Your task to perform on an android device: What's the weather going to be this weekend? Image 0: 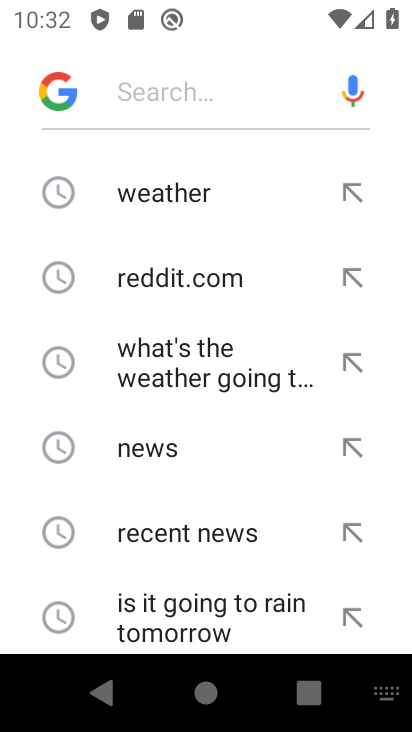
Step 0: press home button
Your task to perform on an android device: What's the weather going to be this weekend? Image 1: 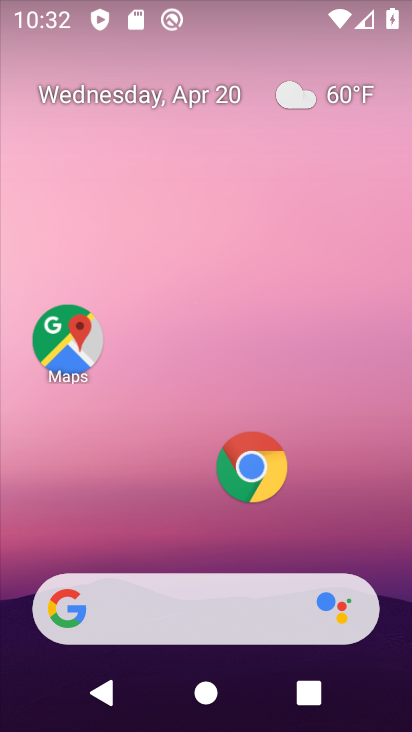
Step 1: drag from (195, 522) to (197, 43)
Your task to perform on an android device: What's the weather going to be this weekend? Image 2: 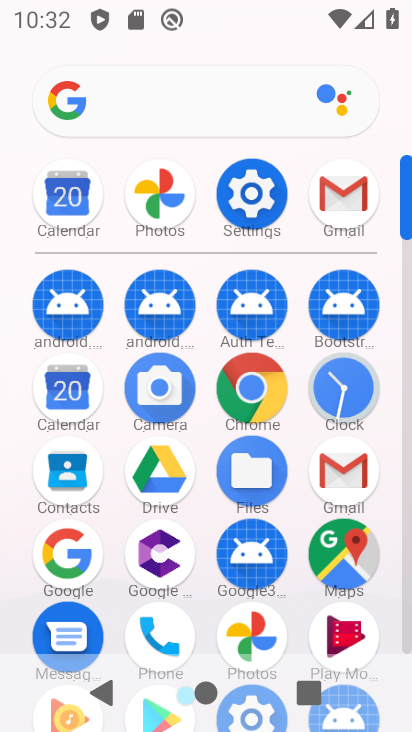
Step 2: click (124, 120)
Your task to perform on an android device: What's the weather going to be this weekend? Image 3: 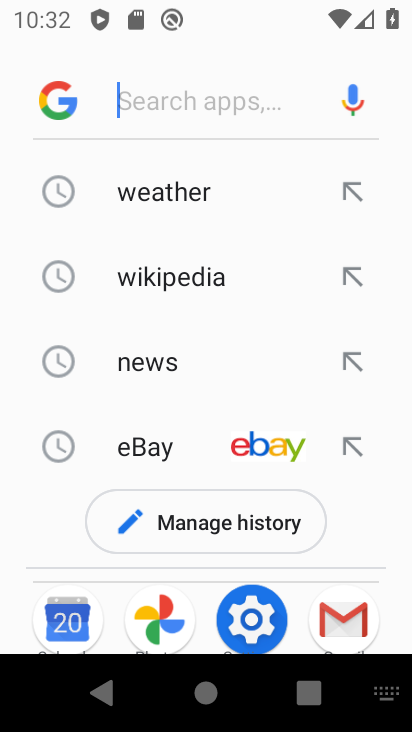
Step 3: type "what's the weather going to be this weekend"
Your task to perform on an android device: What's the weather going to be this weekend? Image 4: 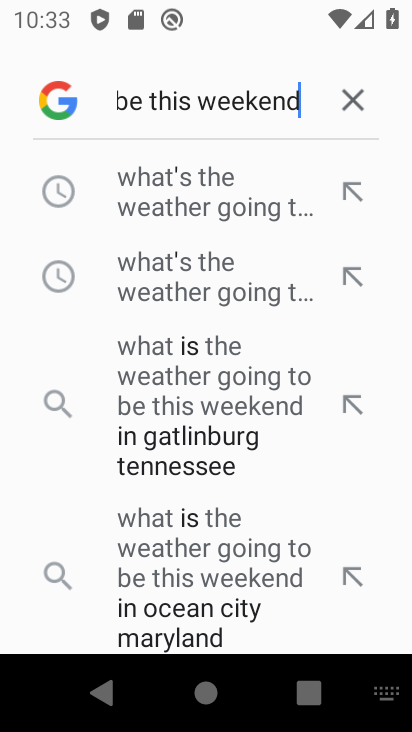
Step 4: click (222, 209)
Your task to perform on an android device: What's the weather going to be this weekend? Image 5: 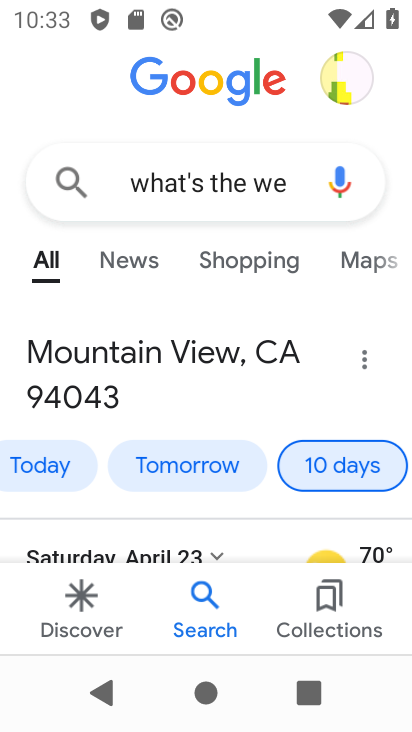
Step 5: task complete